Your task to perform on an android device: Open location settings Image 0: 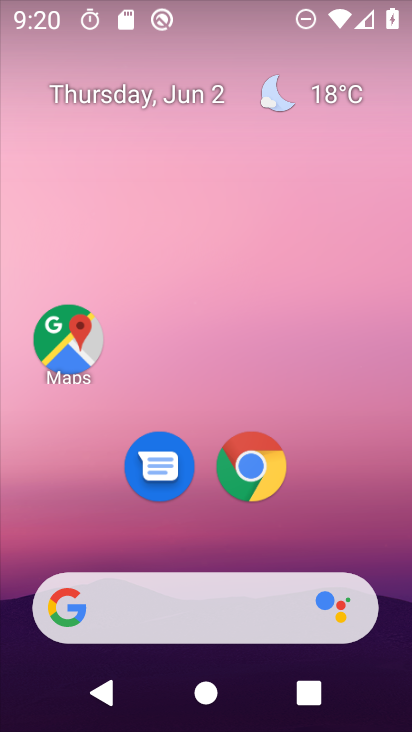
Step 0: press home button
Your task to perform on an android device: Open location settings Image 1: 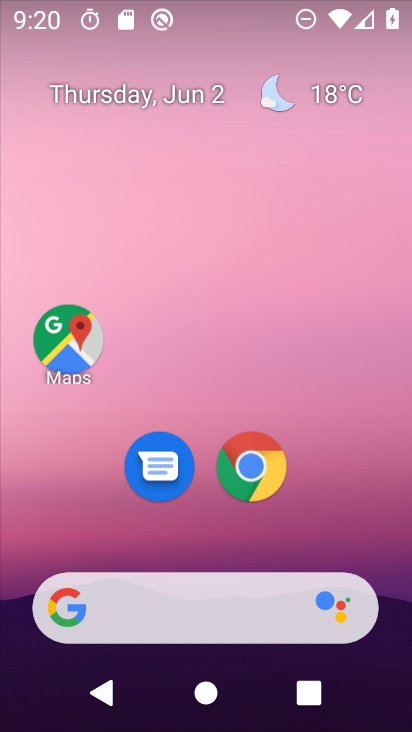
Step 1: drag from (221, 549) to (287, 30)
Your task to perform on an android device: Open location settings Image 2: 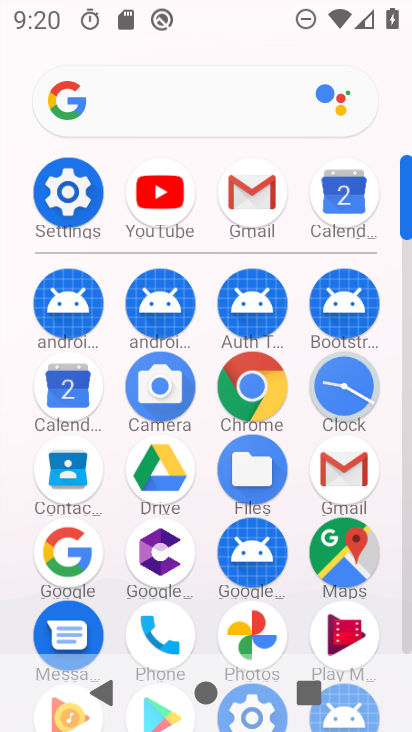
Step 2: click (75, 196)
Your task to perform on an android device: Open location settings Image 3: 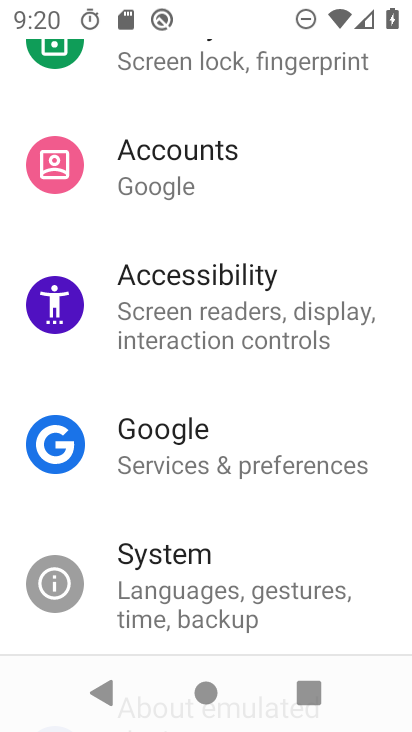
Step 3: drag from (340, 228) to (345, 726)
Your task to perform on an android device: Open location settings Image 4: 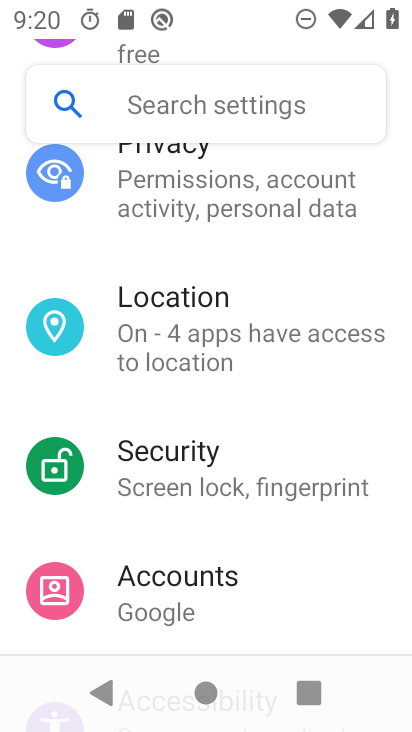
Step 4: click (176, 317)
Your task to perform on an android device: Open location settings Image 5: 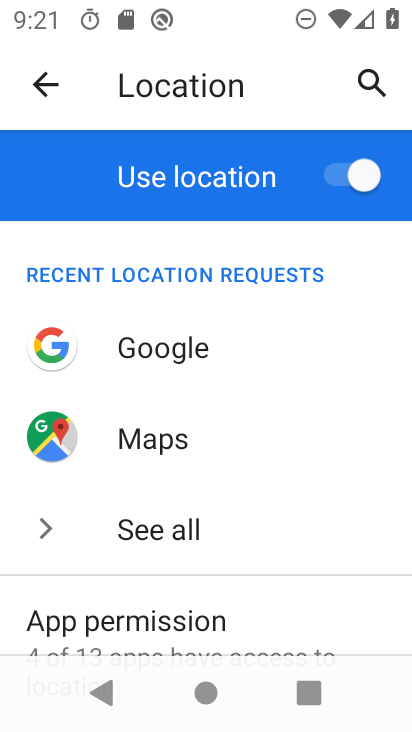
Step 5: task complete